Your task to perform on an android device: Go to wifi settings Image 0: 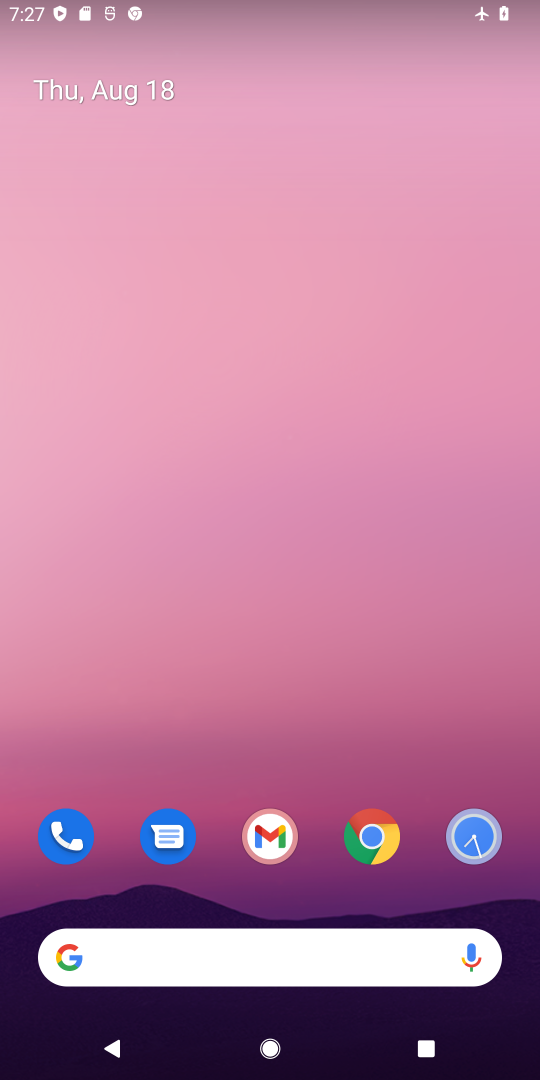
Step 0: drag from (333, 649) to (164, 5)
Your task to perform on an android device: Go to wifi settings Image 1: 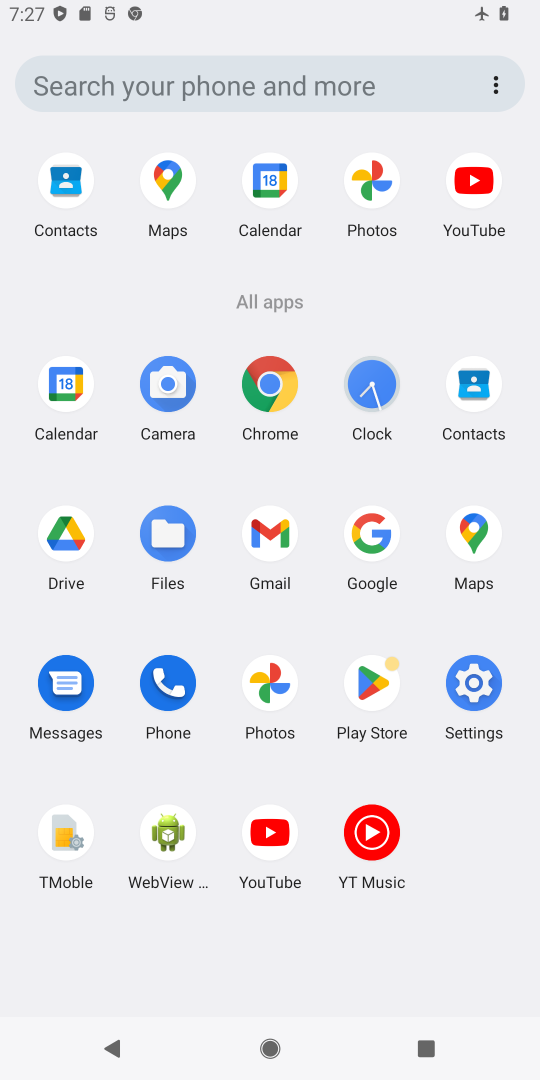
Step 1: click (471, 686)
Your task to perform on an android device: Go to wifi settings Image 2: 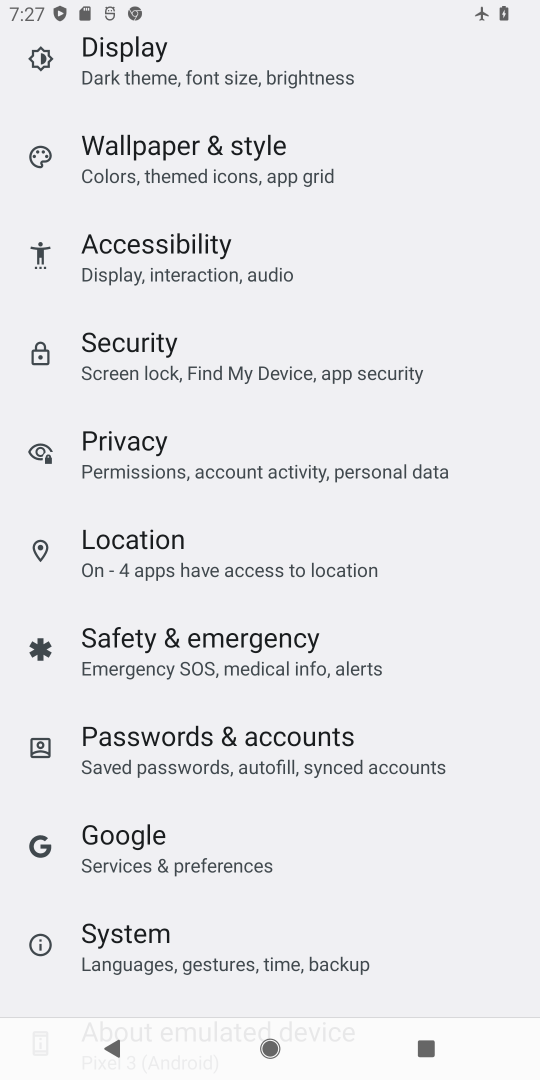
Step 2: drag from (281, 104) to (344, 903)
Your task to perform on an android device: Go to wifi settings Image 3: 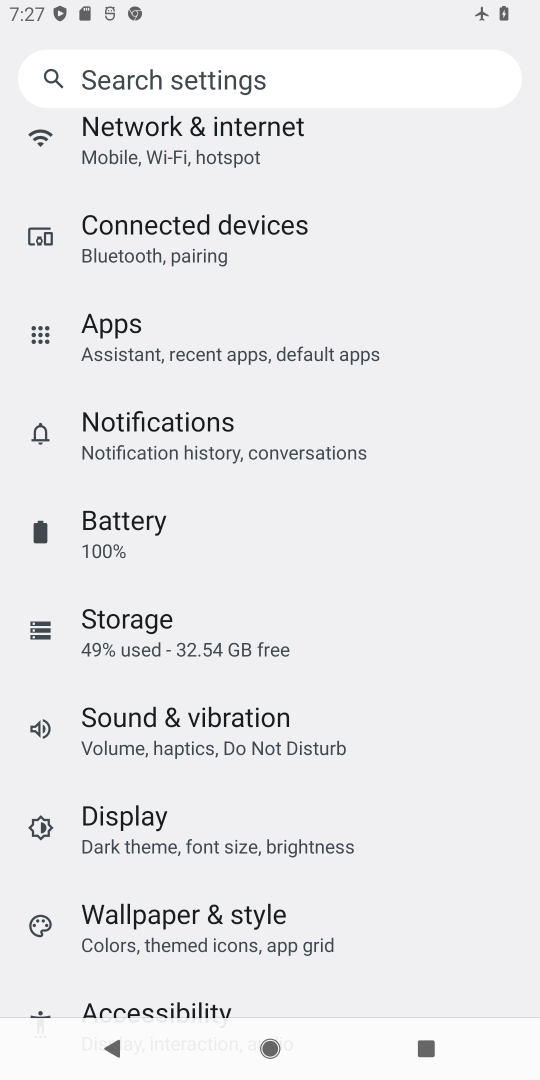
Step 3: drag from (289, 158) to (347, 838)
Your task to perform on an android device: Go to wifi settings Image 4: 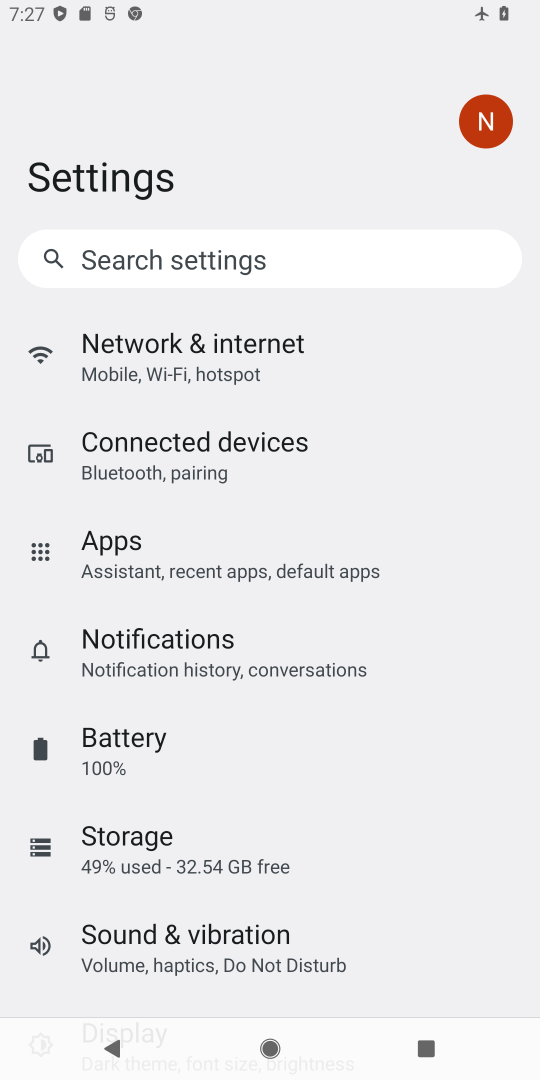
Step 4: click (173, 339)
Your task to perform on an android device: Go to wifi settings Image 5: 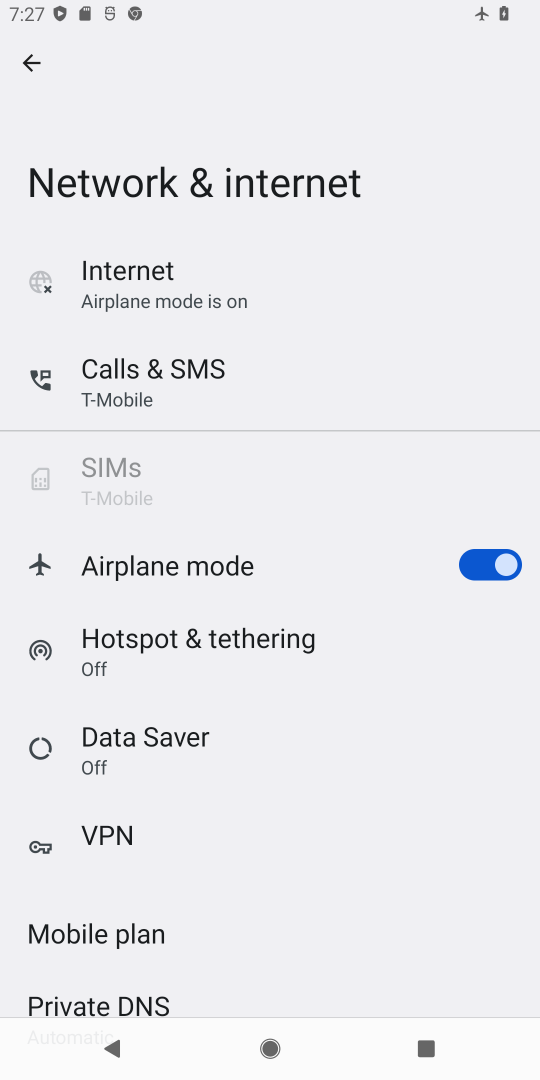
Step 5: click (169, 280)
Your task to perform on an android device: Go to wifi settings Image 6: 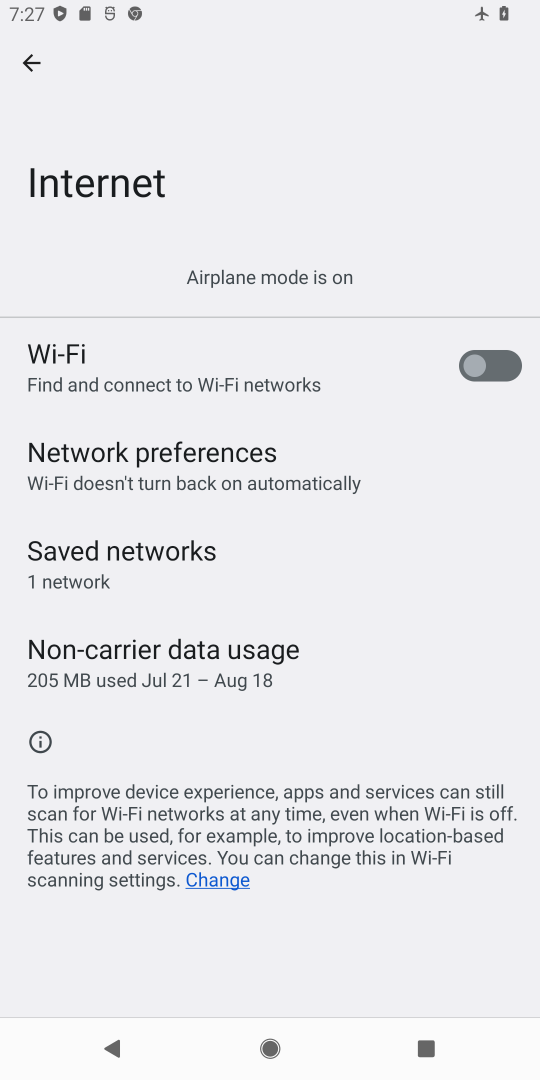
Step 6: task complete